Your task to perform on an android device: Open Google Maps Image 0: 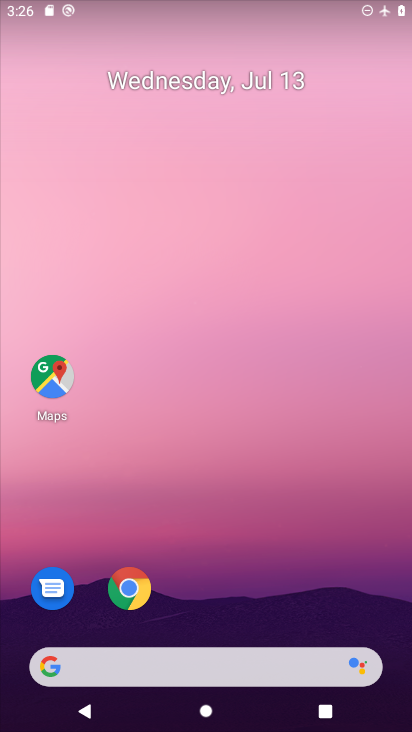
Step 0: click (189, 81)
Your task to perform on an android device: Open Google Maps Image 1: 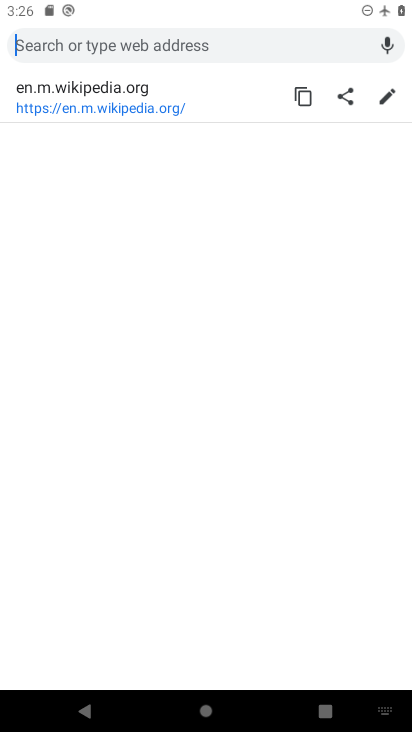
Step 1: press home button
Your task to perform on an android device: Open Google Maps Image 2: 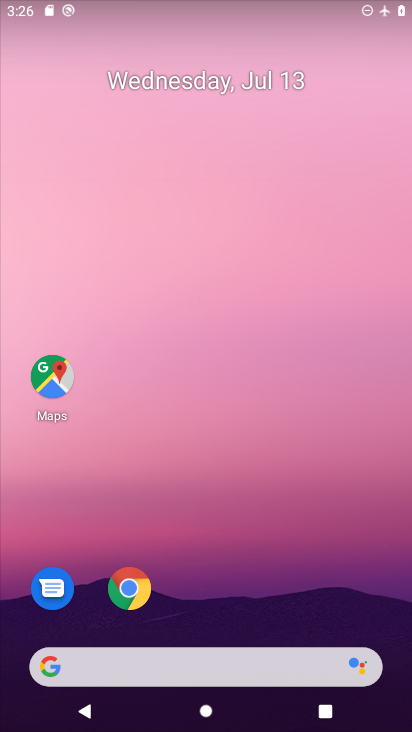
Step 2: drag from (187, 637) to (183, 78)
Your task to perform on an android device: Open Google Maps Image 3: 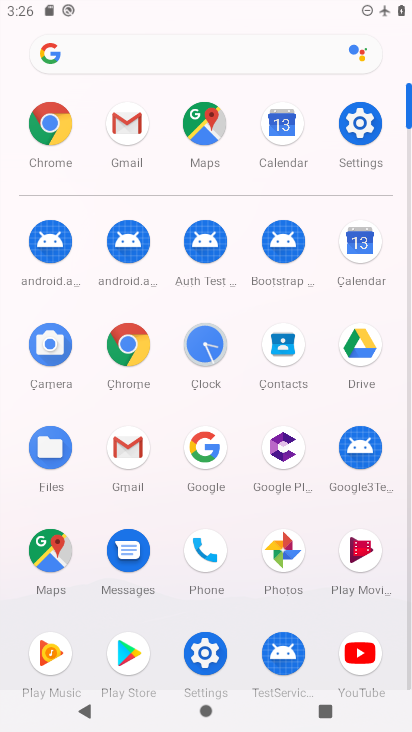
Step 3: click (210, 143)
Your task to perform on an android device: Open Google Maps Image 4: 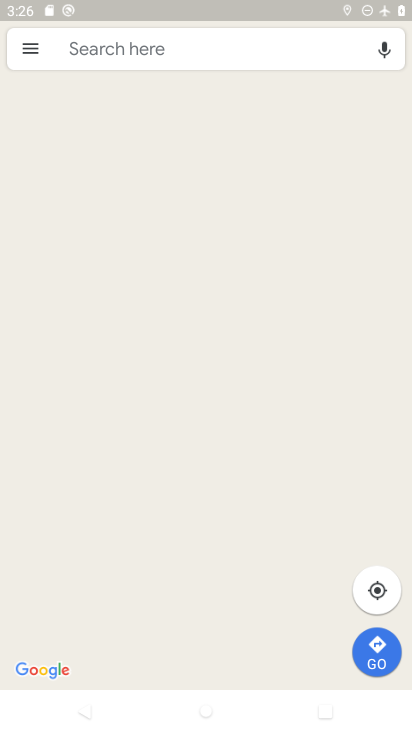
Step 4: task complete